Your task to perform on an android device: Open Youtube and go to "Your channel" Image 0: 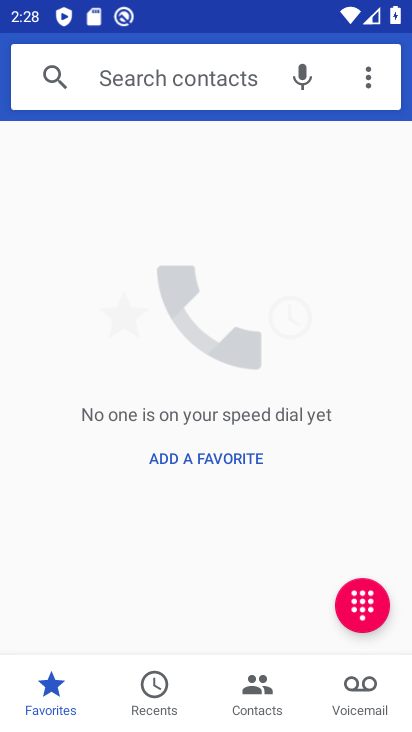
Step 0: press home button
Your task to perform on an android device: Open Youtube and go to "Your channel" Image 1: 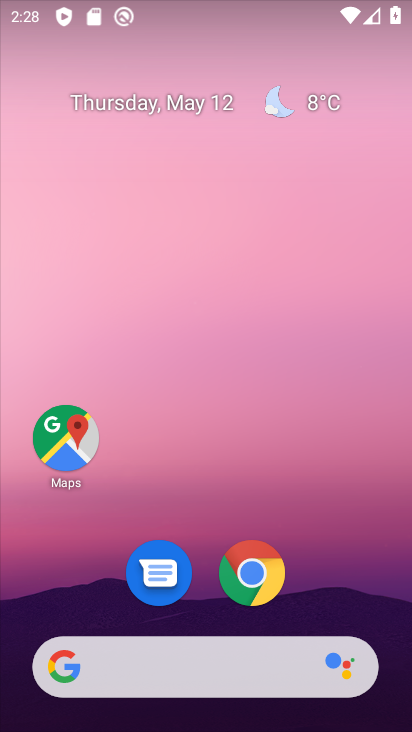
Step 1: drag from (352, 606) to (371, 115)
Your task to perform on an android device: Open Youtube and go to "Your channel" Image 2: 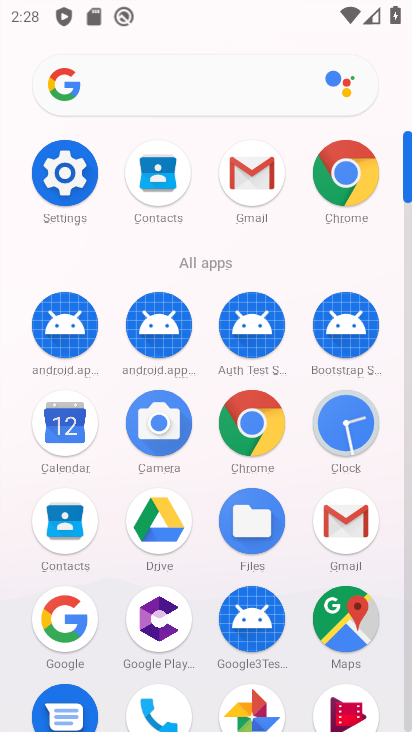
Step 2: drag from (312, 223) to (304, 21)
Your task to perform on an android device: Open Youtube and go to "Your channel" Image 3: 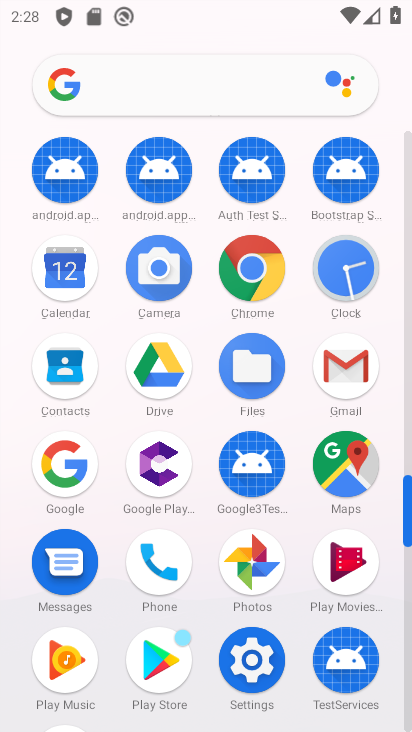
Step 3: drag from (293, 132) to (286, 575)
Your task to perform on an android device: Open Youtube and go to "Your channel" Image 4: 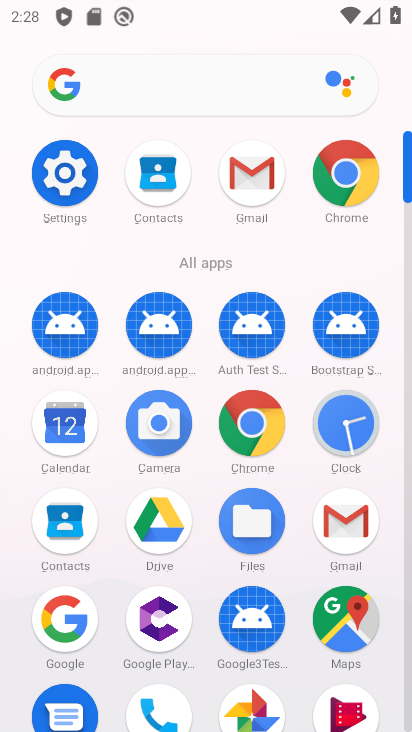
Step 4: drag from (280, 283) to (311, 23)
Your task to perform on an android device: Open Youtube and go to "Your channel" Image 5: 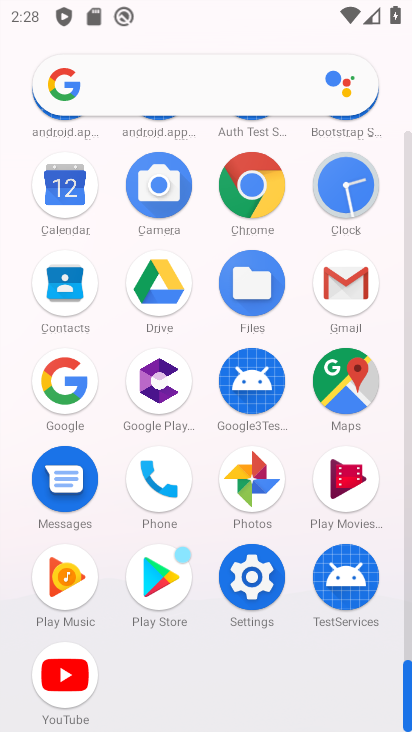
Step 5: click (52, 670)
Your task to perform on an android device: Open Youtube and go to "Your channel" Image 6: 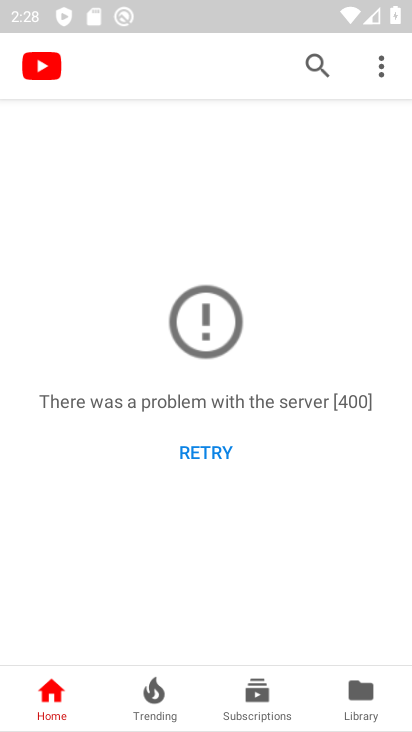
Step 6: task complete